Your task to perform on an android device: Open privacy settings Image 0: 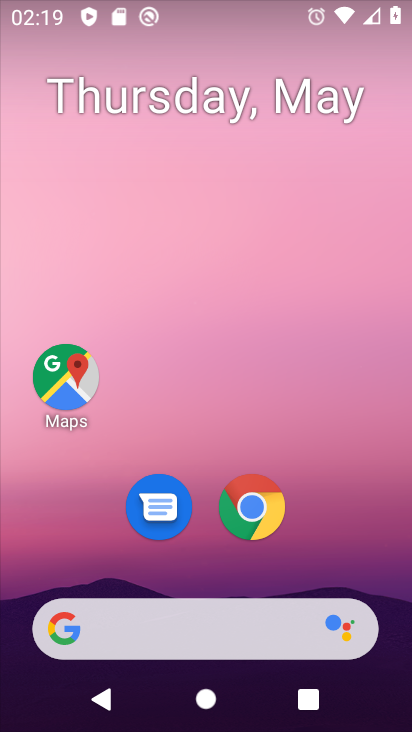
Step 0: drag from (380, 527) to (283, 106)
Your task to perform on an android device: Open privacy settings Image 1: 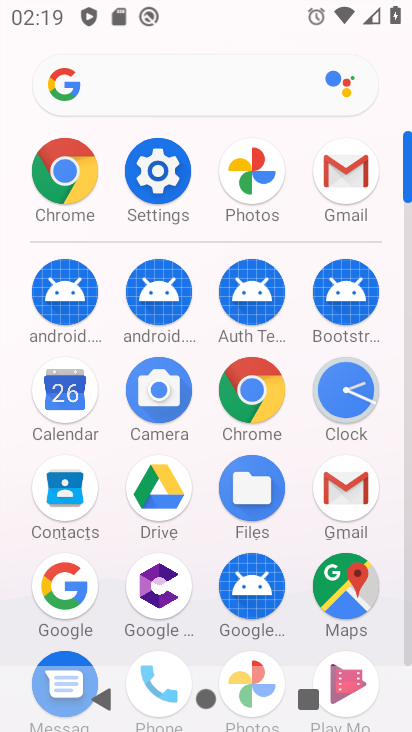
Step 1: click (136, 169)
Your task to perform on an android device: Open privacy settings Image 2: 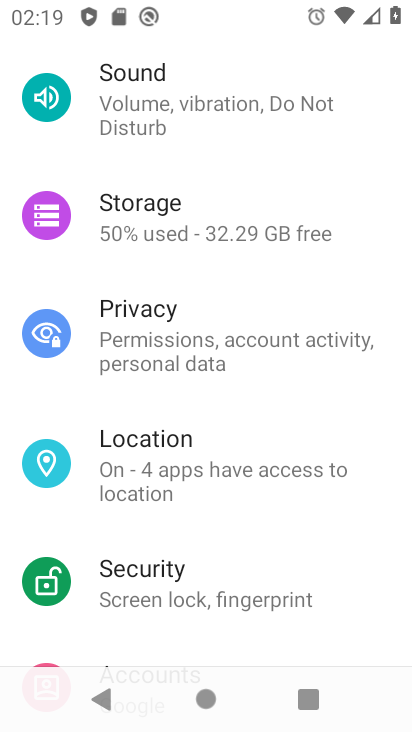
Step 2: click (219, 344)
Your task to perform on an android device: Open privacy settings Image 3: 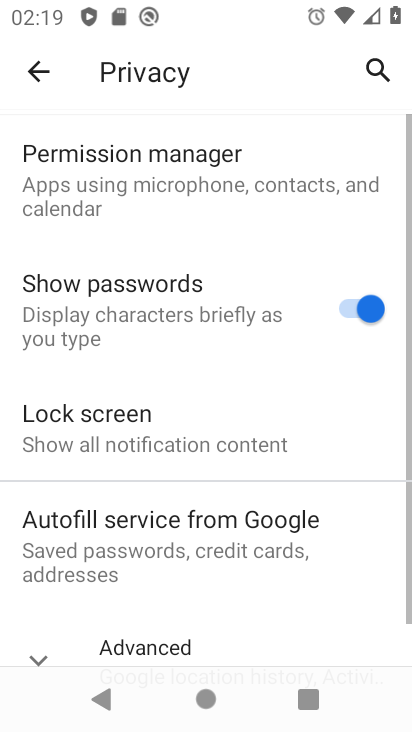
Step 3: task complete